Your task to perform on an android device: turn on location history Image 0: 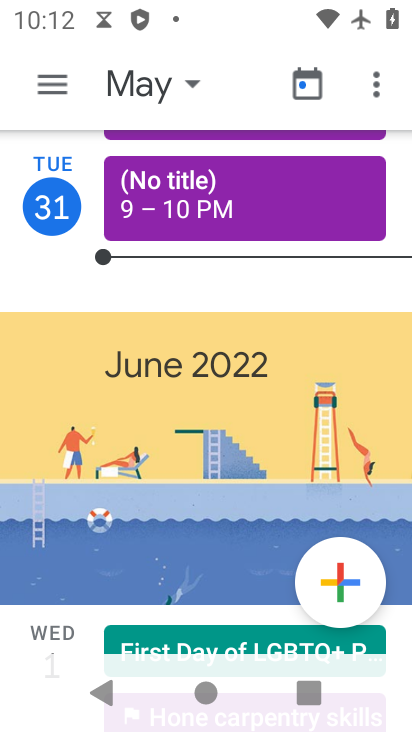
Step 0: press back button
Your task to perform on an android device: turn on location history Image 1: 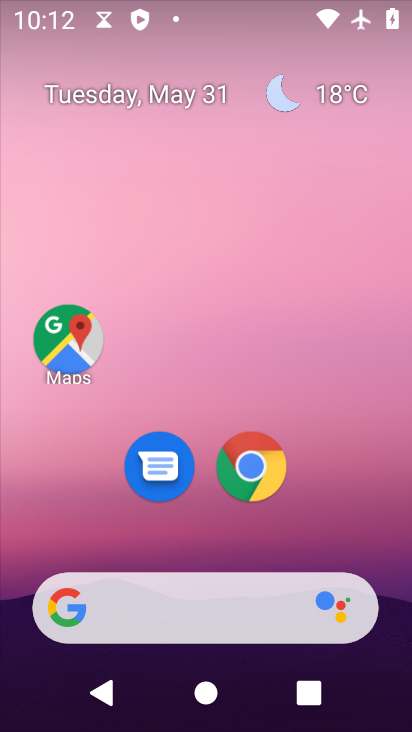
Step 1: drag from (389, 555) to (278, 20)
Your task to perform on an android device: turn on location history Image 2: 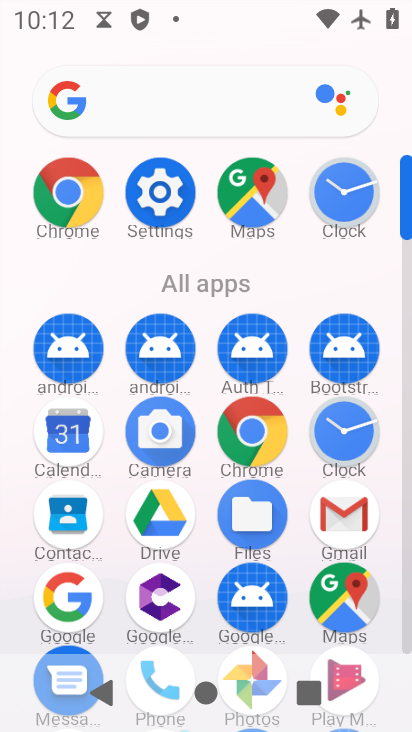
Step 2: drag from (20, 570) to (22, 301)
Your task to perform on an android device: turn on location history Image 3: 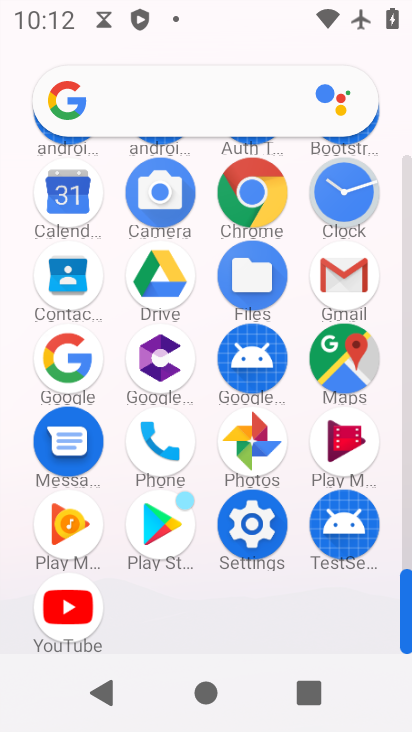
Step 3: click (254, 523)
Your task to perform on an android device: turn on location history Image 4: 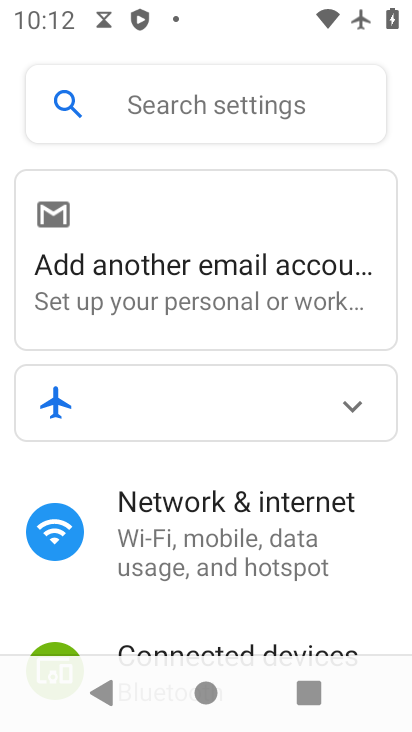
Step 4: drag from (344, 571) to (315, 210)
Your task to perform on an android device: turn on location history Image 5: 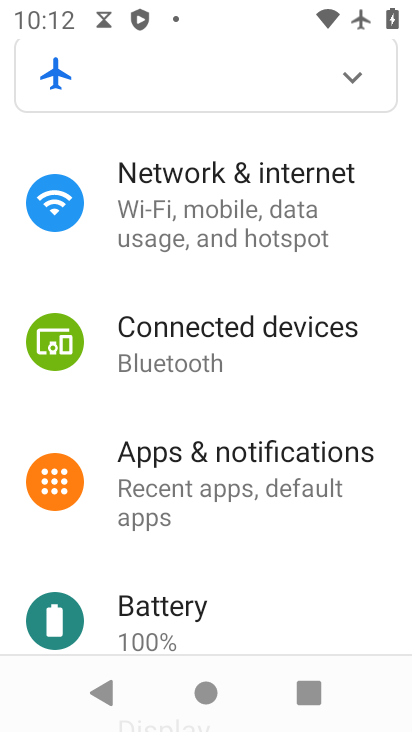
Step 5: drag from (298, 530) to (280, 188)
Your task to perform on an android device: turn on location history Image 6: 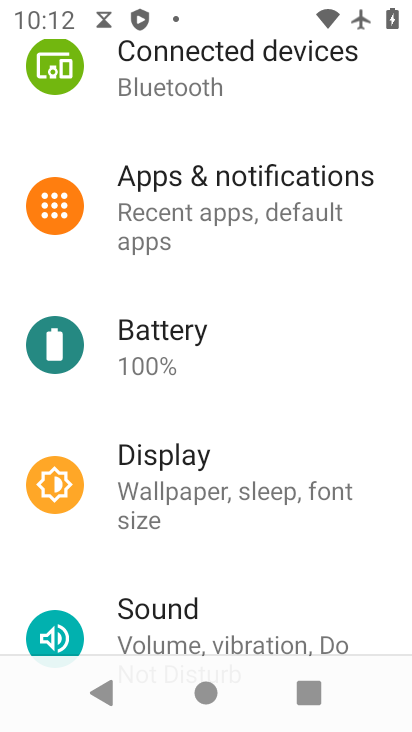
Step 6: drag from (291, 594) to (282, 211)
Your task to perform on an android device: turn on location history Image 7: 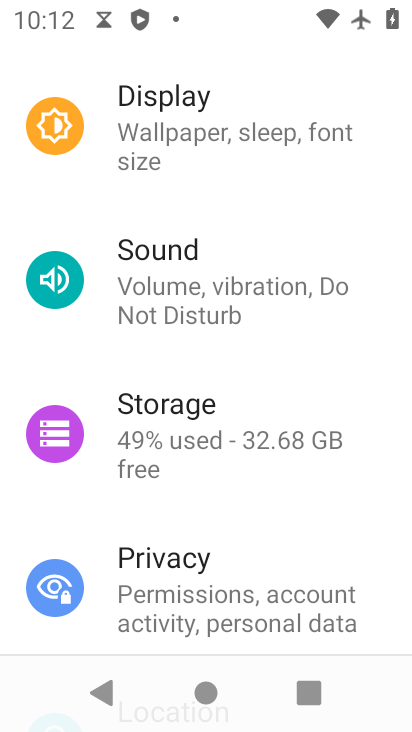
Step 7: drag from (309, 519) to (247, 118)
Your task to perform on an android device: turn on location history Image 8: 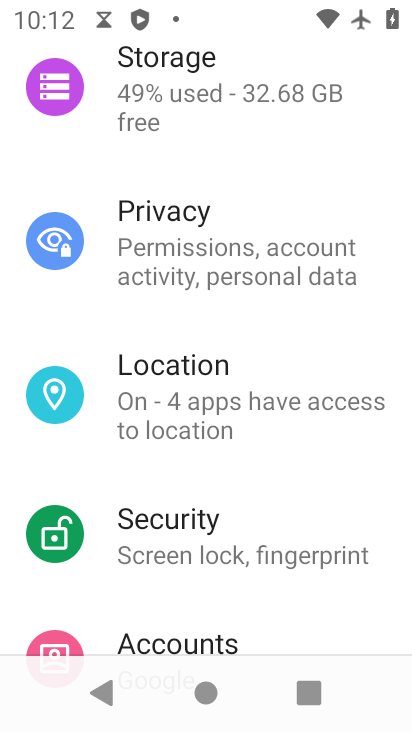
Step 8: drag from (283, 534) to (267, 151)
Your task to perform on an android device: turn on location history Image 9: 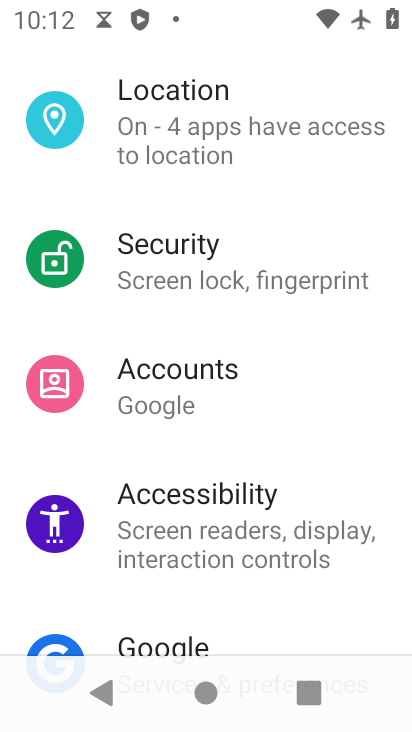
Step 9: click (209, 113)
Your task to perform on an android device: turn on location history Image 10: 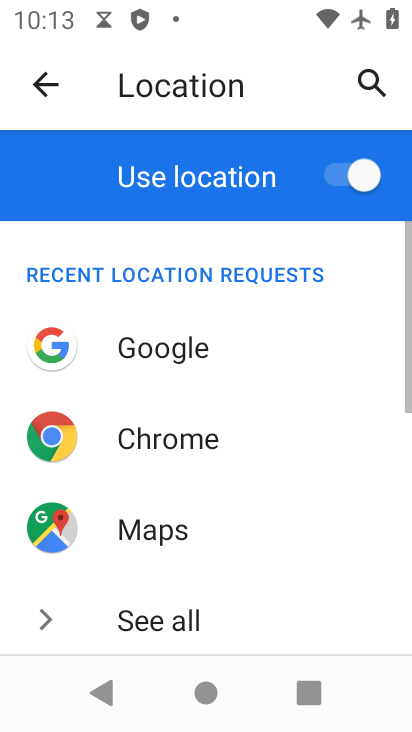
Step 10: drag from (262, 548) to (291, 135)
Your task to perform on an android device: turn on location history Image 11: 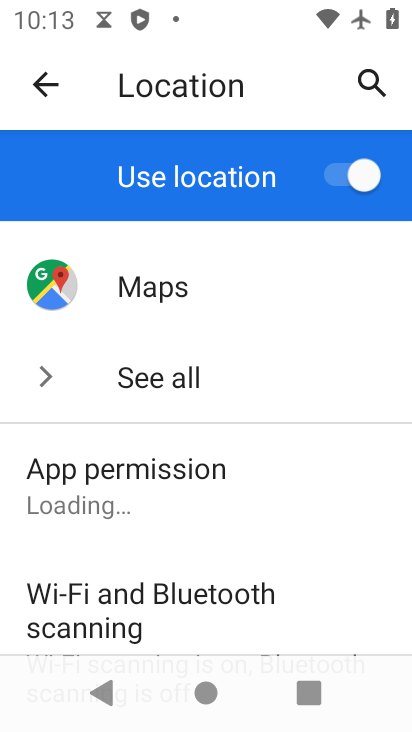
Step 11: drag from (249, 467) to (231, 199)
Your task to perform on an android device: turn on location history Image 12: 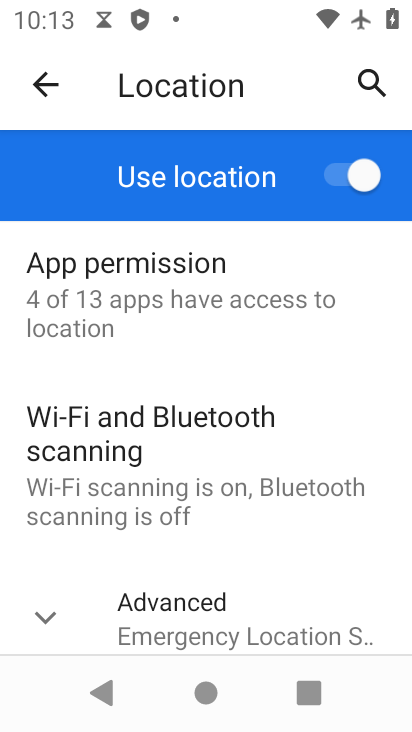
Step 12: click (66, 607)
Your task to perform on an android device: turn on location history Image 13: 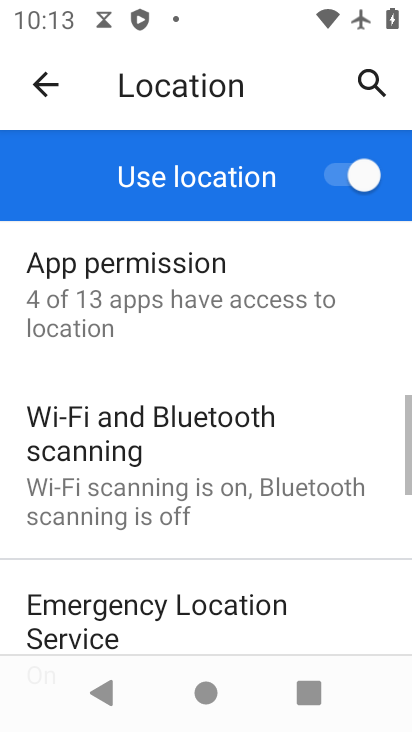
Step 13: drag from (243, 565) to (254, 269)
Your task to perform on an android device: turn on location history Image 14: 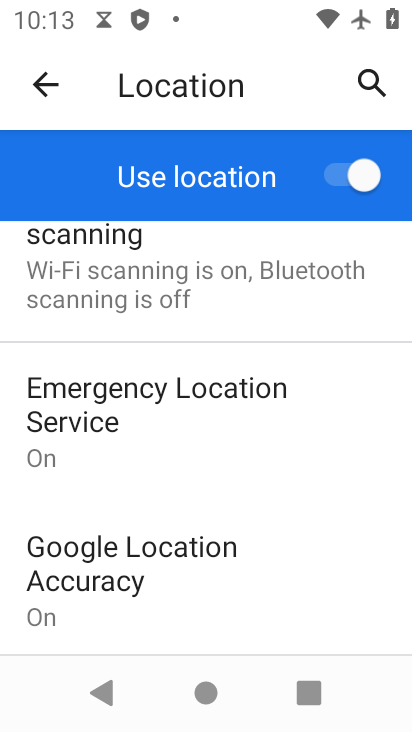
Step 14: drag from (189, 576) to (208, 265)
Your task to perform on an android device: turn on location history Image 15: 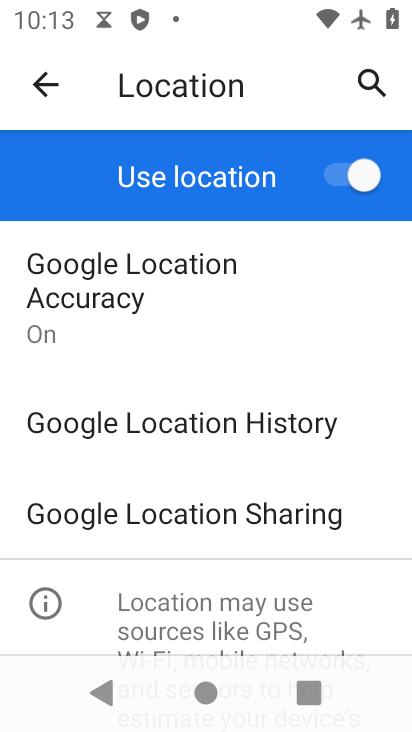
Step 15: click (206, 429)
Your task to perform on an android device: turn on location history Image 16: 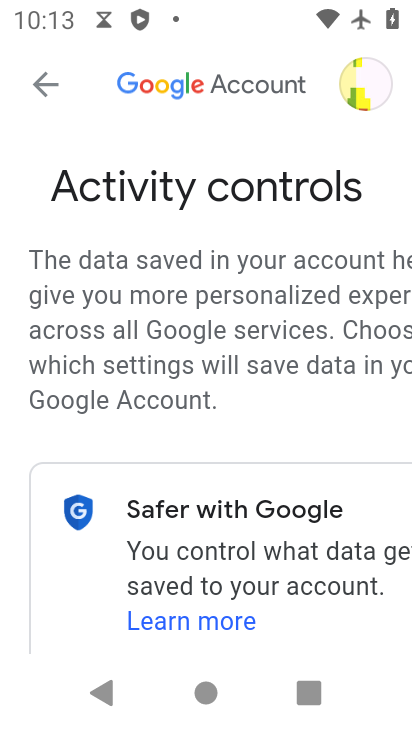
Step 16: drag from (224, 511) to (186, 155)
Your task to perform on an android device: turn on location history Image 17: 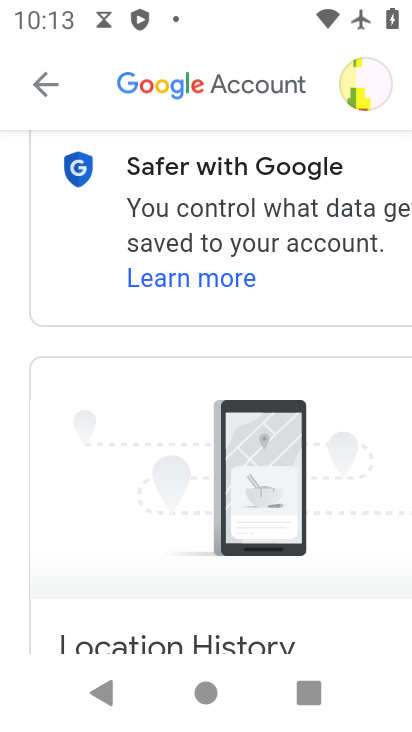
Step 17: drag from (175, 547) to (120, 129)
Your task to perform on an android device: turn on location history Image 18: 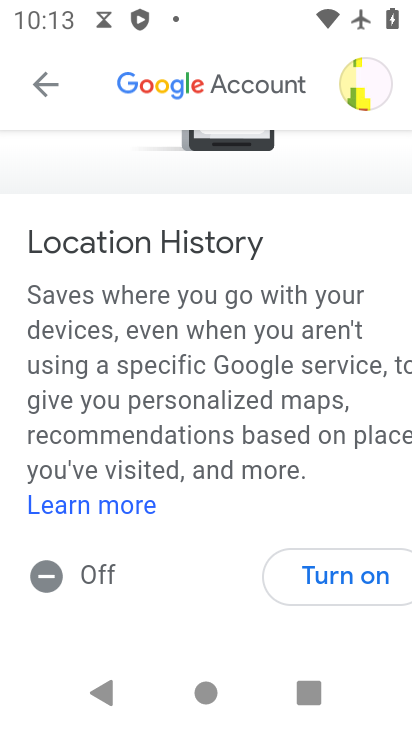
Step 18: drag from (179, 498) to (182, 176)
Your task to perform on an android device: turn on location history Image 19: 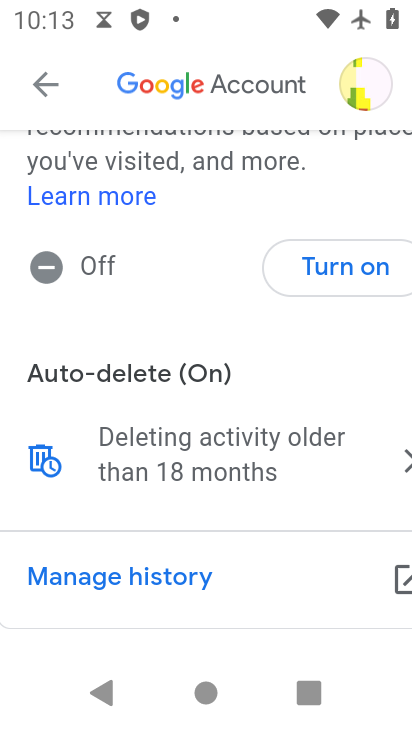
Step 19: click (310, 270)
Your task to perform on an android device: turn on location history Image 20: 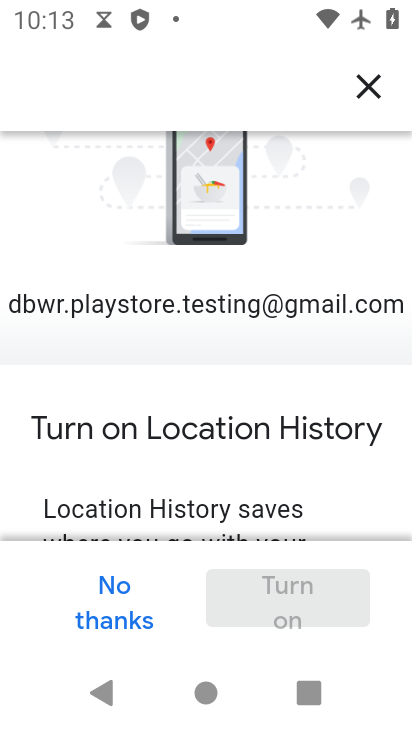
Step 20: drag from (311, 351) to (266, 68)
Your task to perform on an android device: turn on location history Image 21: 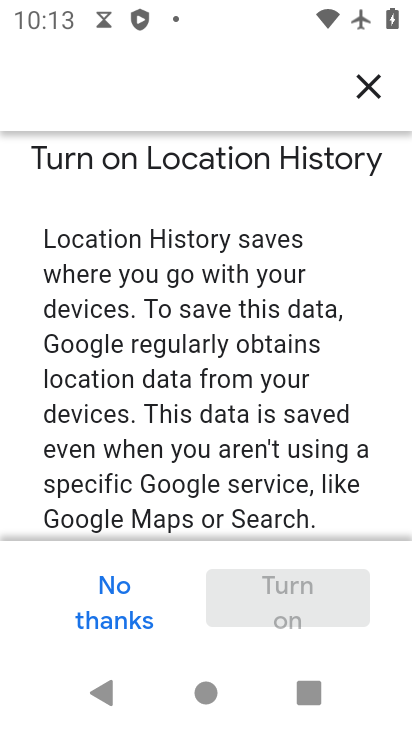
Step 21: drag from (275, 386) to (258, 71)
Your task to perform on an android device: turn on location history Image 22: 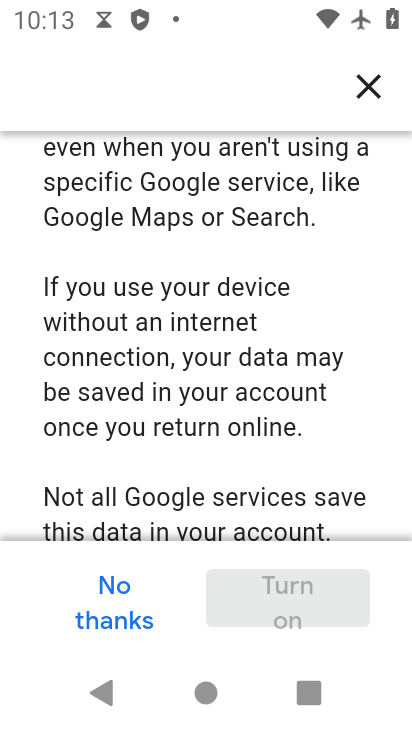
Step 22: drag from (268, 415) to (256, 111)
Your task to perform on an android device: turn on location history Image 23: 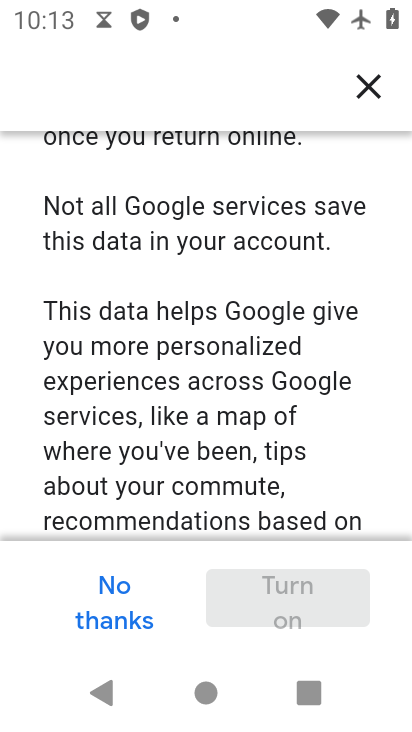
Step 23: drag from (274, 466) to (261, 121)
Your task to perform on an android device: turn on location history Image 24: 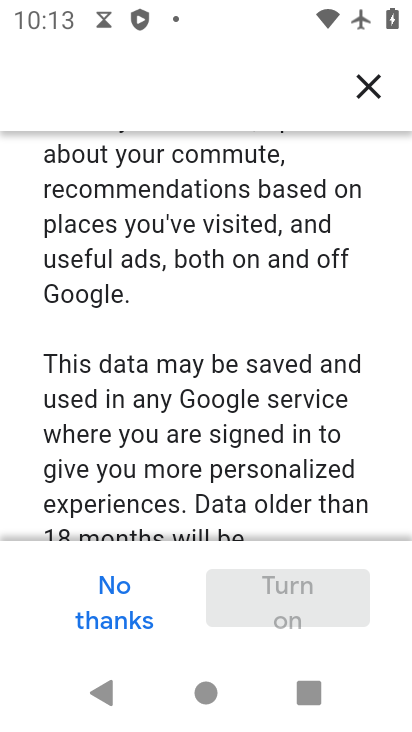
Step 24: drag from (266, 481) to (270, 107)
Your task to perform on an android device: turn on location history Image 25: 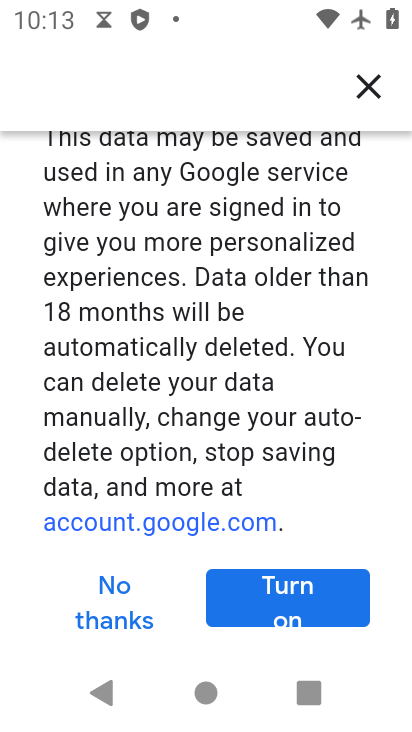
Step 25: click (291, 615)
Your task to perform on an android device: turn on location history Image 26: 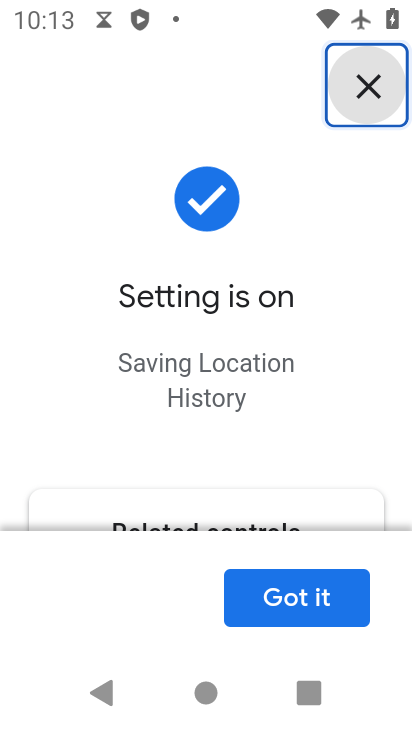
Step 26: task complete